Your task to perform on an android device: Open Google Chrome and open the bookmarks view Image 0: 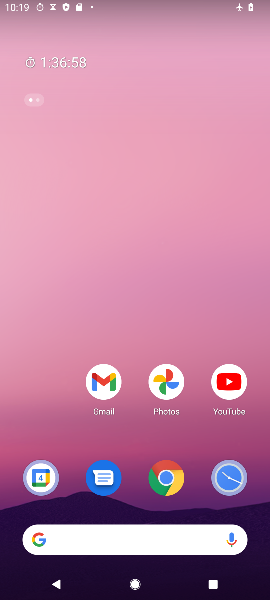
Step 0: drag from (143, 485) to (121, 50)
Your task to perform on an android device: Open Google Chrome and open the bookmarks view Image 1: 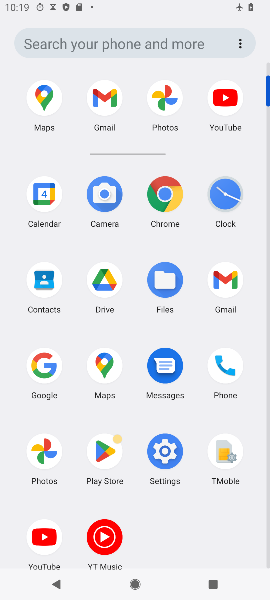
Step 1: click (169, 194)
Your task to perform on an android device: Open Google Chrome and open the bookmarks view Image 2: 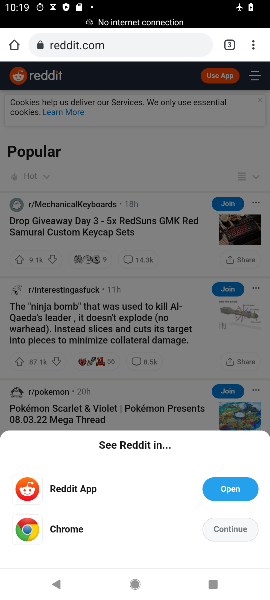
Step 2: task complete